Your task to perform on an android device: change text size in settings app Image 0: 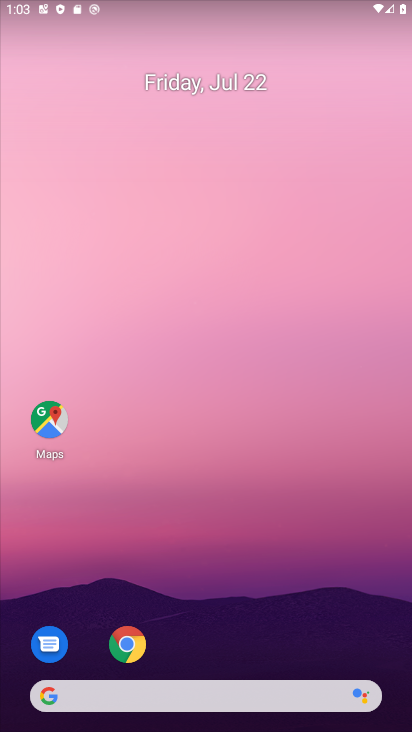
Step 0: click (130, 627)
Your task to perform on an android device: change text size in settings app Image 1: 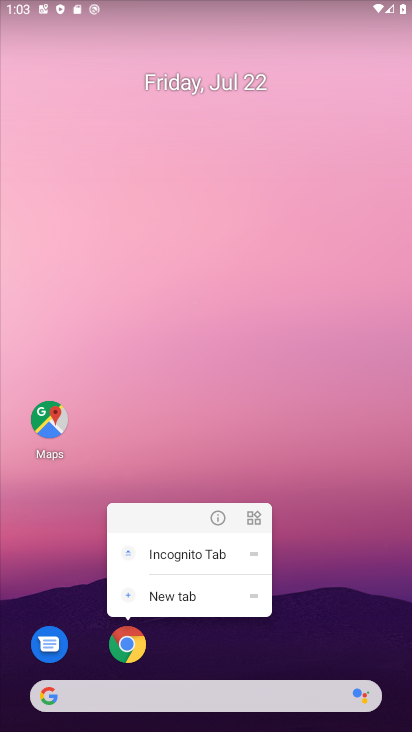
Step 1: click (119, 634)
Your task to perform on an android device: change text size in settings app Image 2: 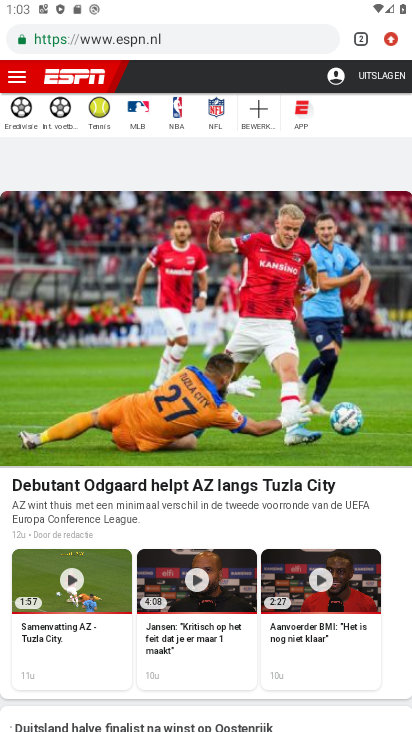
Step 2: press home button
Your task to perform on an android device: change text size in settings app Image 3: 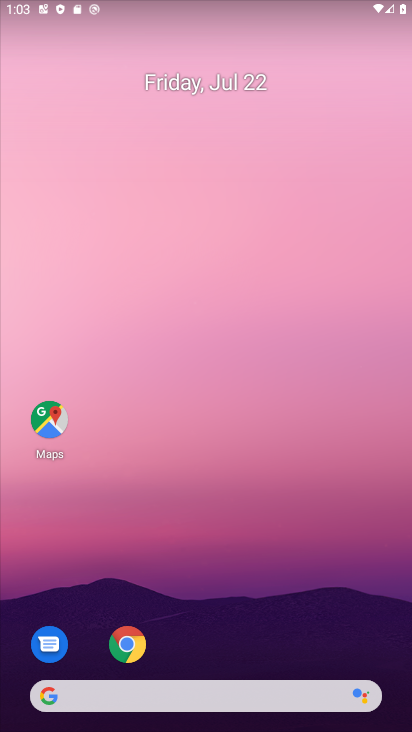
Step 3: drag from (220, 657) to (213, 64)
Your task to perform on an android device: change text size in settings app Image 4: 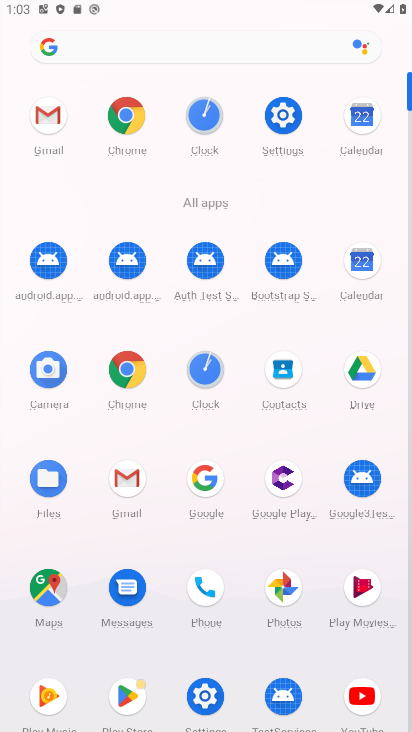
Step 4: click (279, 106)
Your task to perform on an android device: change text size in settings app Image 5: 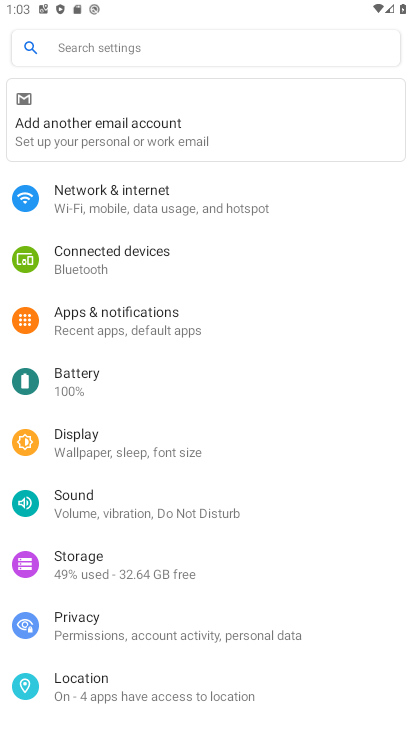
Step 5: drag from (173, 550) to (181, 172)
Your task to perform on an android device: change text size in settings app Image 6: 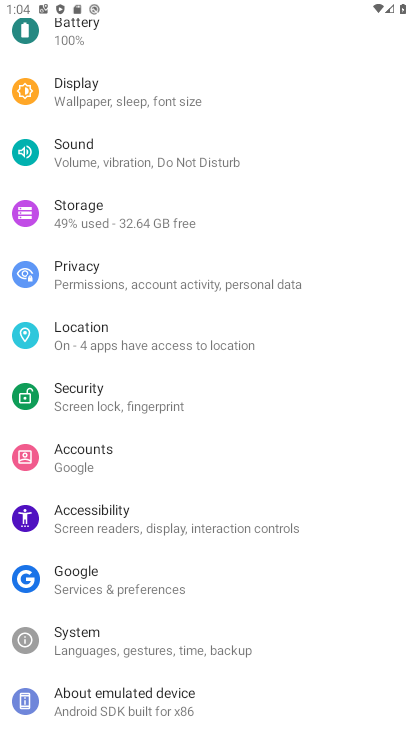
Step 6: click (87, 80)
Your task to perform on an android device: change text size in settings app Image 7: 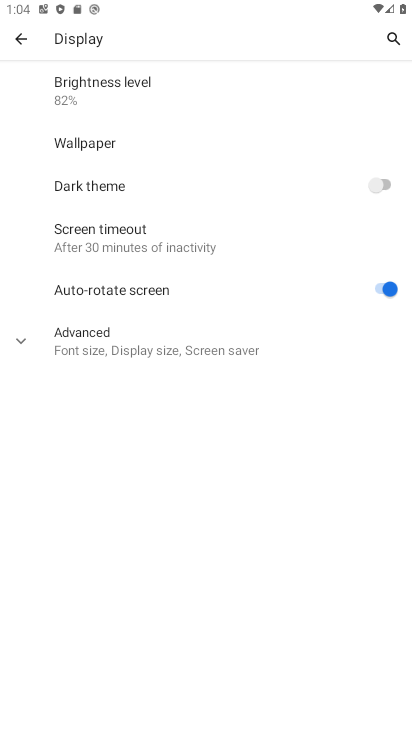
Step 7: click (13, 340)
Your task to perform on an android device: change text size in settings app Image 8: 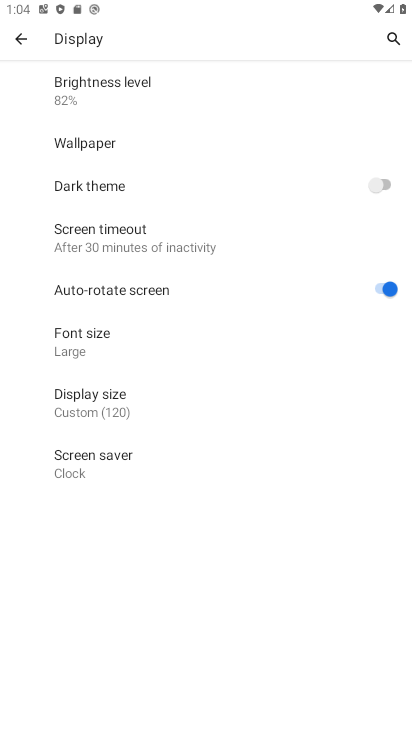
Step 8: click (112, 346)
Your task to perform on an android device: change text size in settings app Image 9: 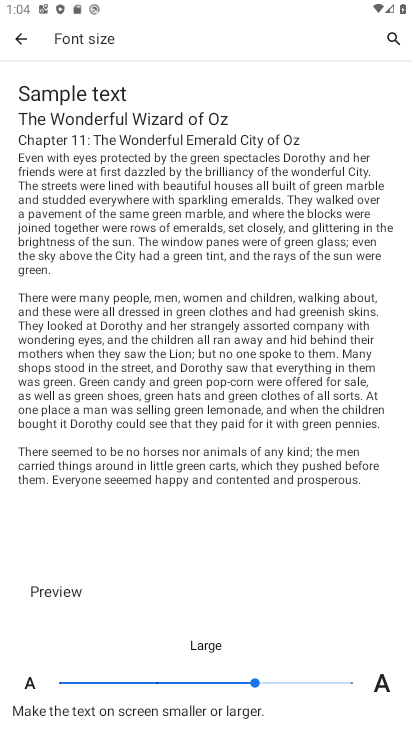
Step 9: click (344, 684)
Your task to perform on an android device: change text size in settings app Image 10: 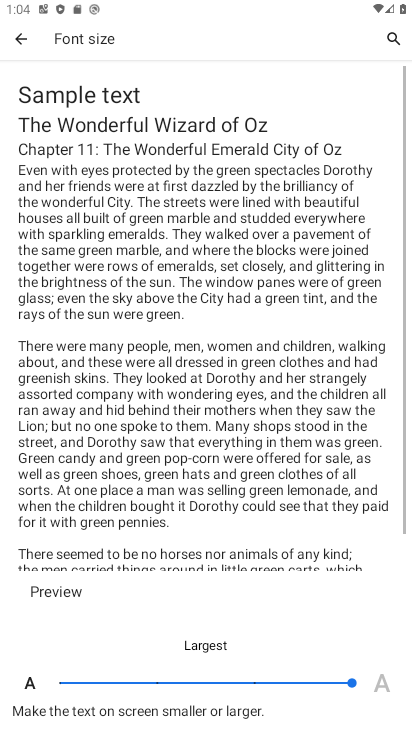
Step 10: task complete